Your task to perform on an android device: check battery use Image 0: 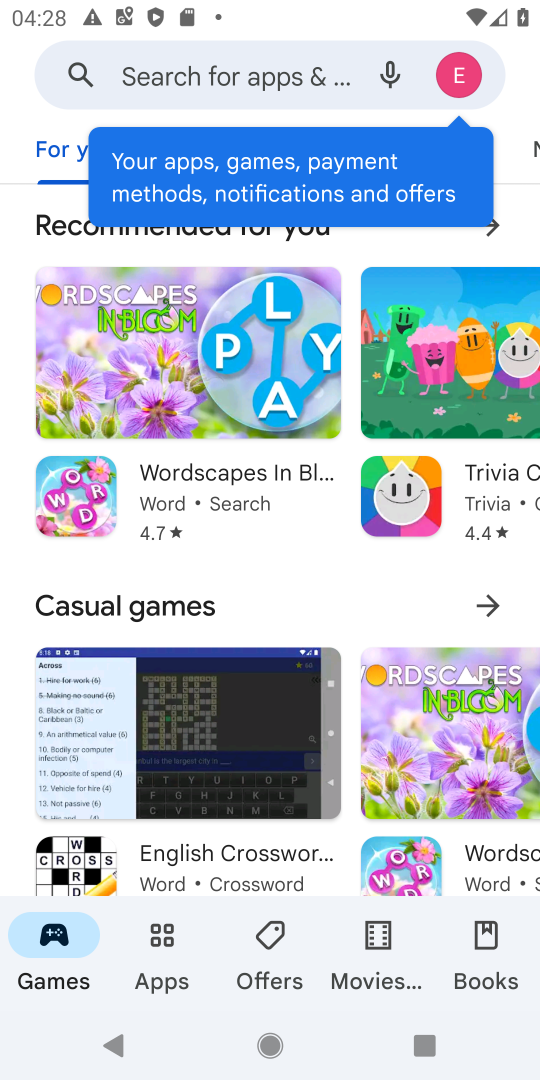
Step 0: press home button
Your task to perform on an android device: check battery use Image 1: 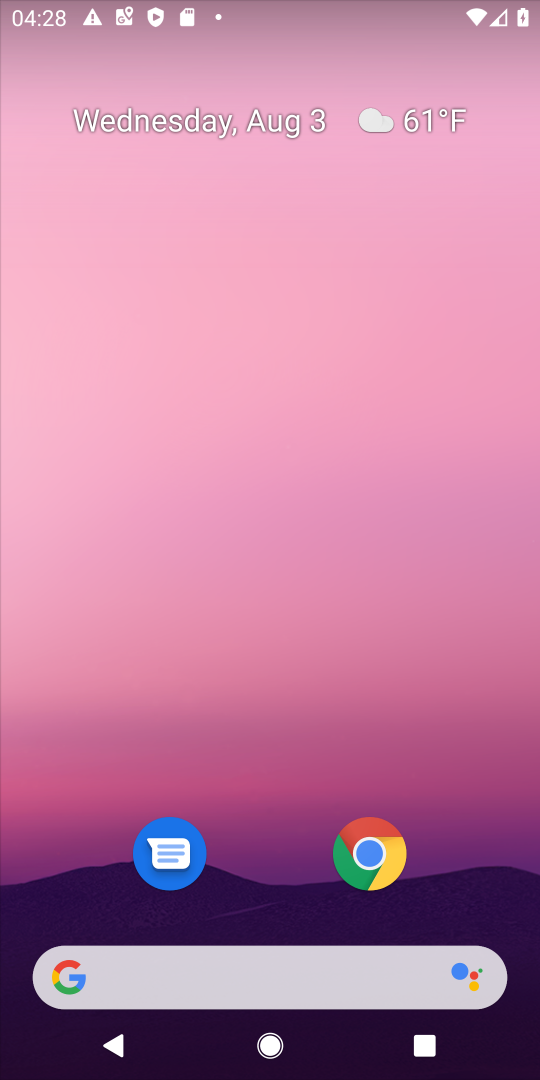
Step 1: drag from (269, 667) to (269, 347)
Your task to perform on an android device: check battery use Image 2: 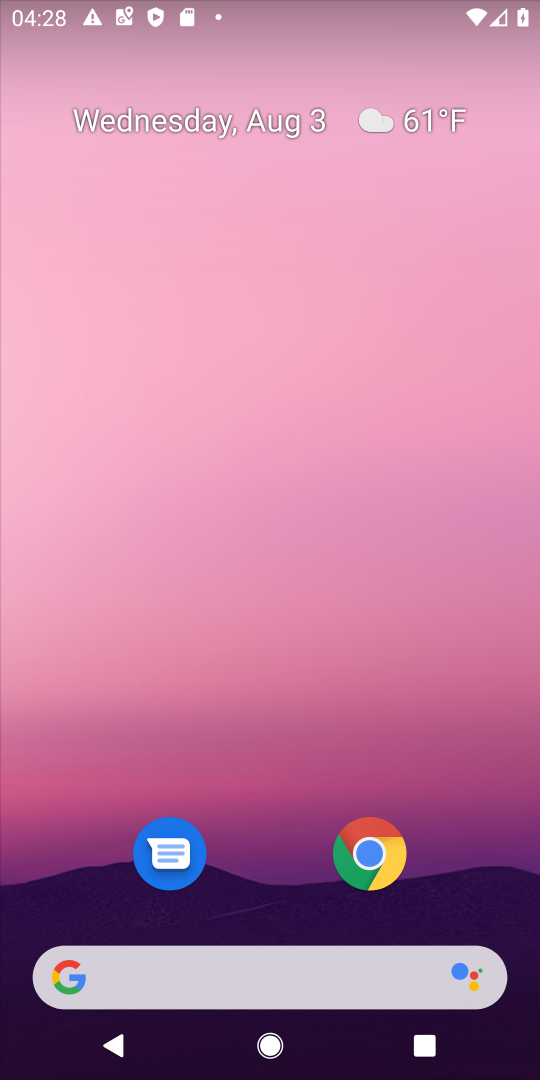
Step 2: drag from (255, 931) to (262, 111)
Your task to perform on an android device: check battery use Image 3: 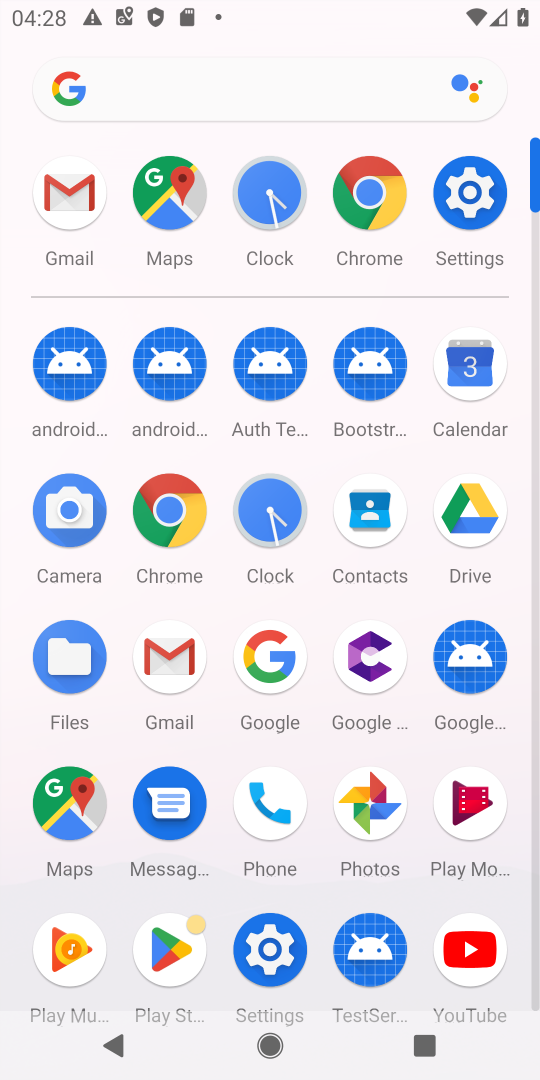
Step 3: click (462, 198)
Your task to perform on an android device: check battery use Image 4: 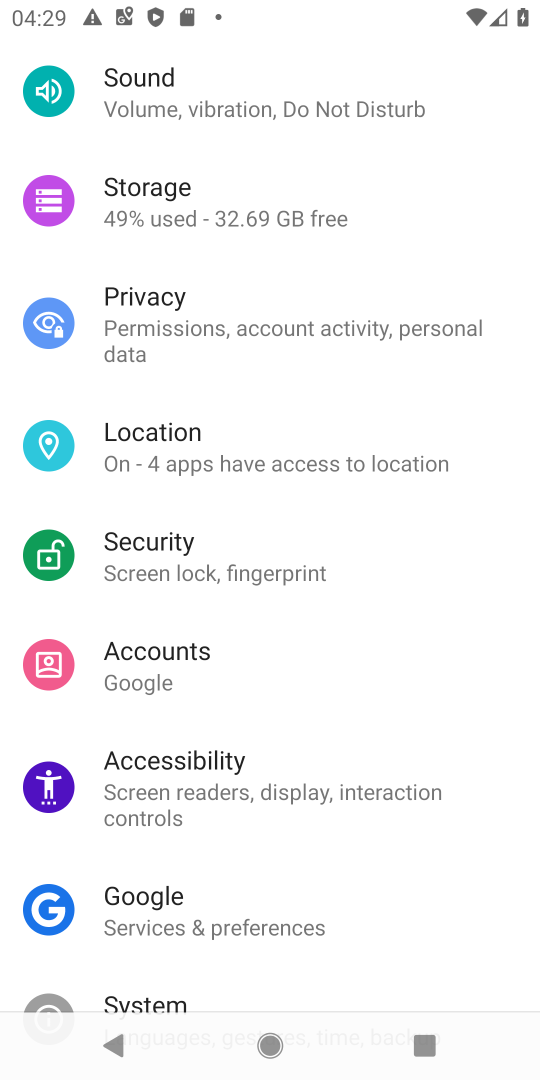
Step 4: drag from (167, 215) to (219, 869)
Your task to perform on an android device: check battery use Image 5: 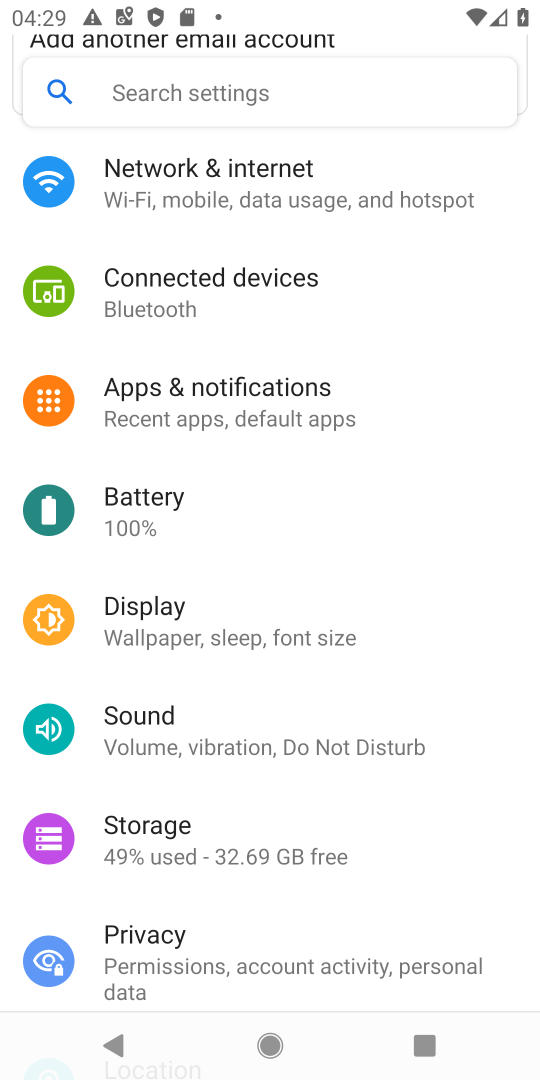
Step 5: click (147, 515)
Your task to perform on an android device: check battery use Image 6: 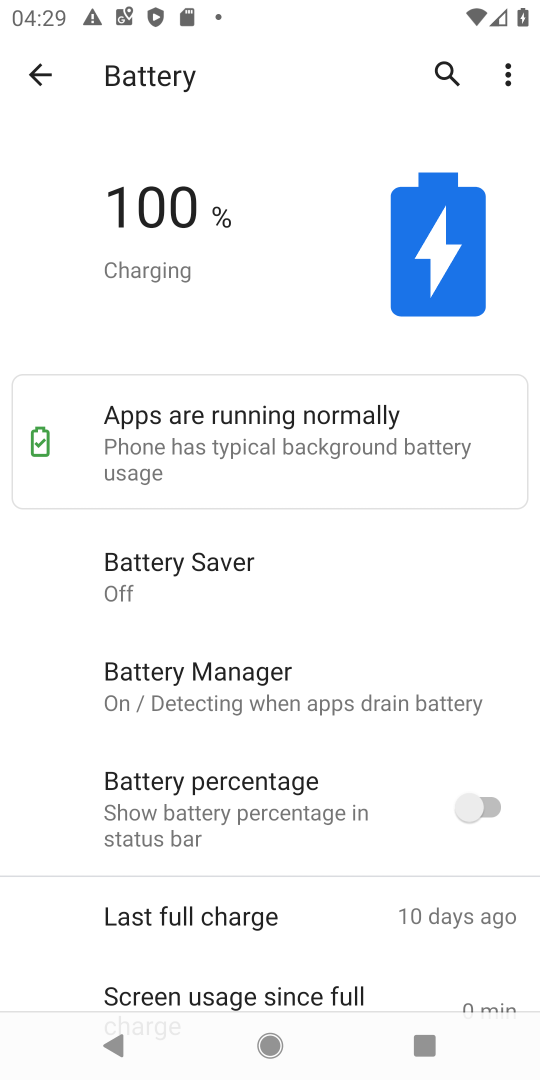
Step 6: click (512, 82)
Your task to perform on an android device: check battery use Image 7: 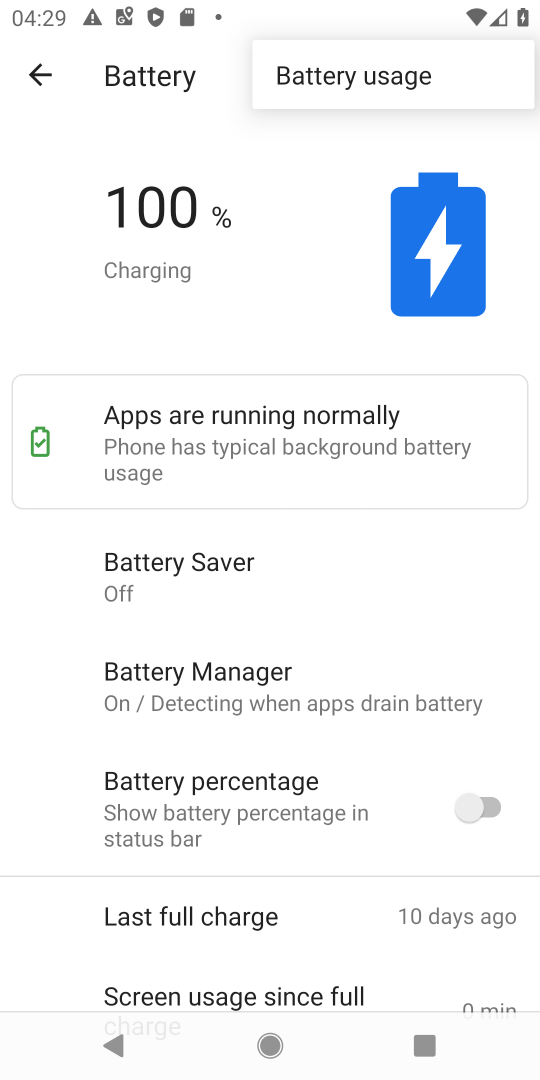
Step 7: click (367, 67)
Your task to perform on an android device: check battery use Image 8: 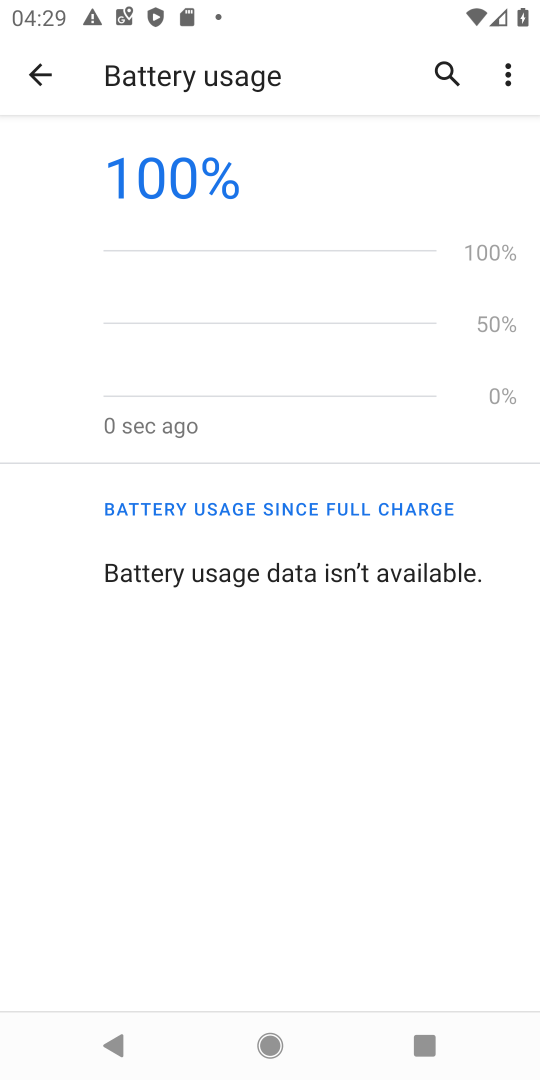
Step 8: task complete